Your task to perform on an android device: turn notification dots on Image 0: 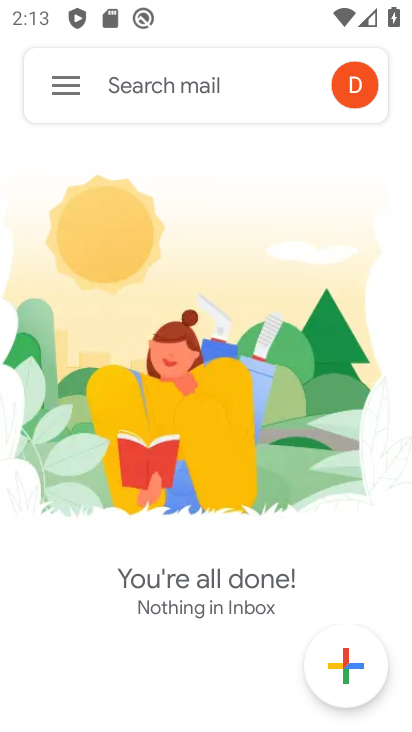
Step 0: press home button
Your task to perform on an android device: turn notification dots on Image 1: 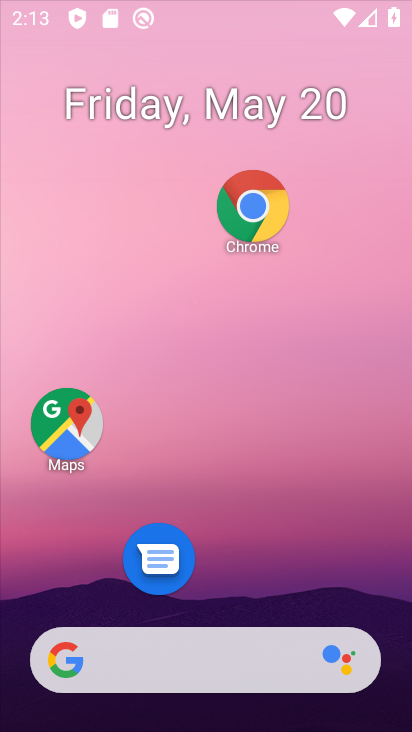
Step 1: drag from (183, 585) to (135, 1)
Your task to perform on an android device: turn notification dots on Image 2: 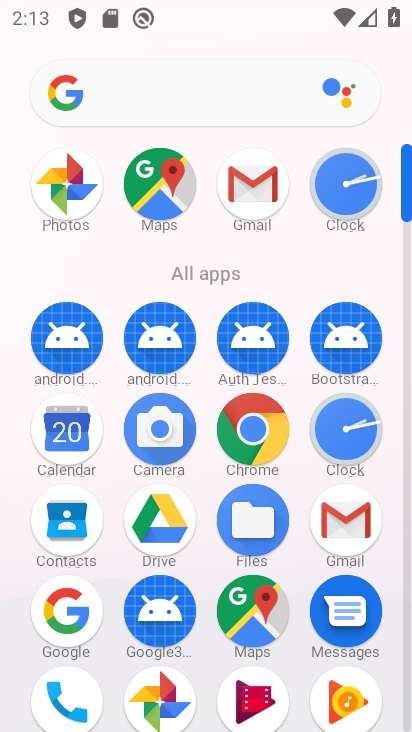
Step 2: drag from (198, 521) to (168, 56)
Your task to perform on an android device: turn notification dots on Image 3: 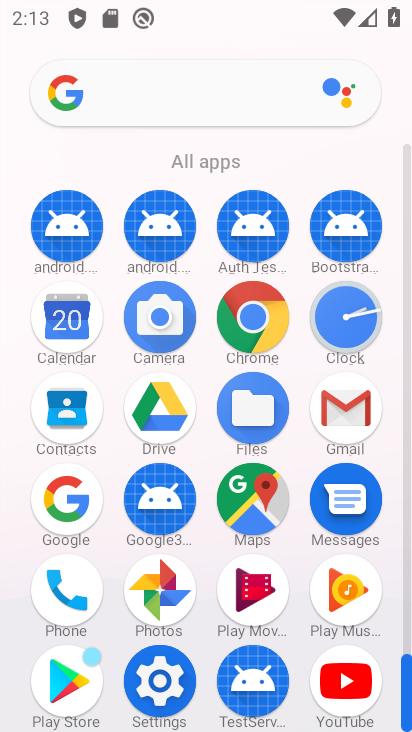
Step 3: click (170, 700)
Your task to perform on an android device: turn notification dots on Image 4: 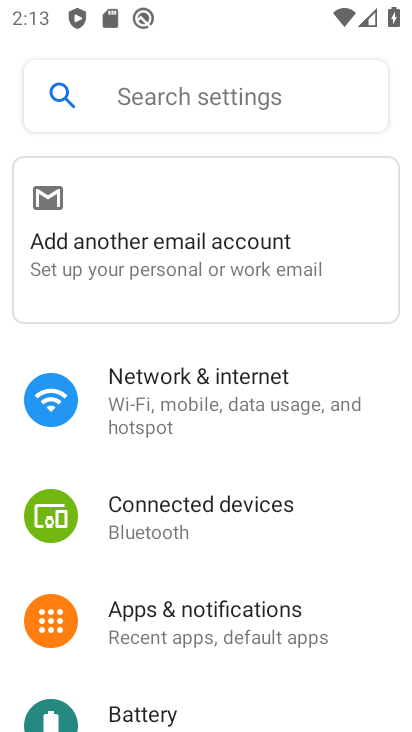
Step 4: click (220, 632)
Your task to perform on an android device: turn notification dots on Image 5: 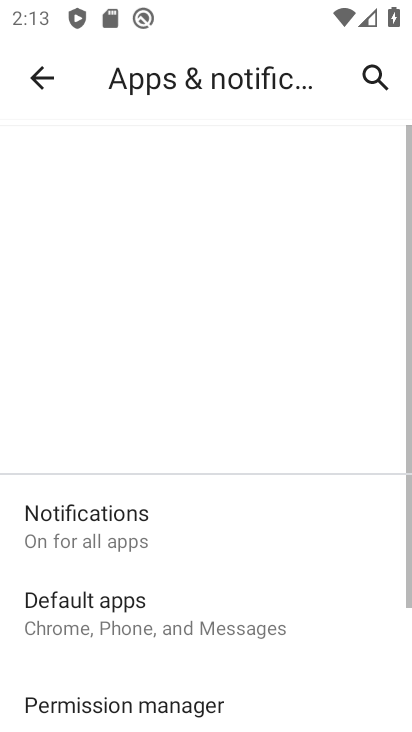
Step 5: click (93, 518)
Your task to perform on an android device: turn notification dots on Image 6: 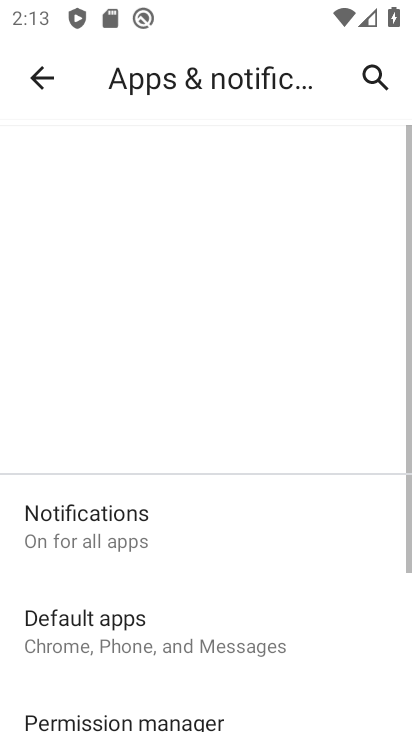
Step 6: drag from (234, 604) to (195, 197)
Your task to perform on an android device: turn notification dots on Image 7: 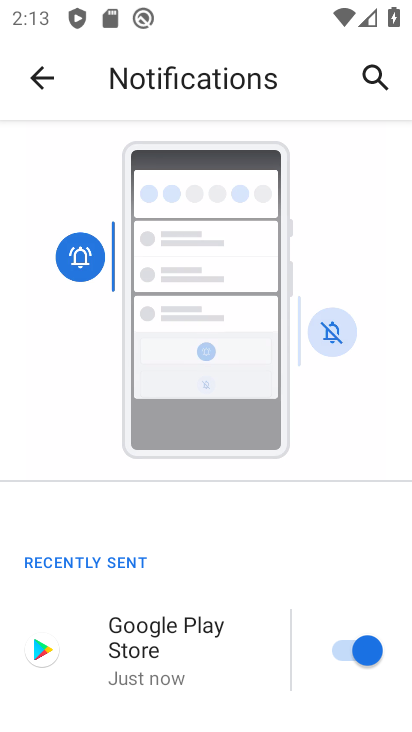
Step 7: drag from (256, 689) to (199, 162)
Your task to perform on an android device: turn notification dots on Image 8: 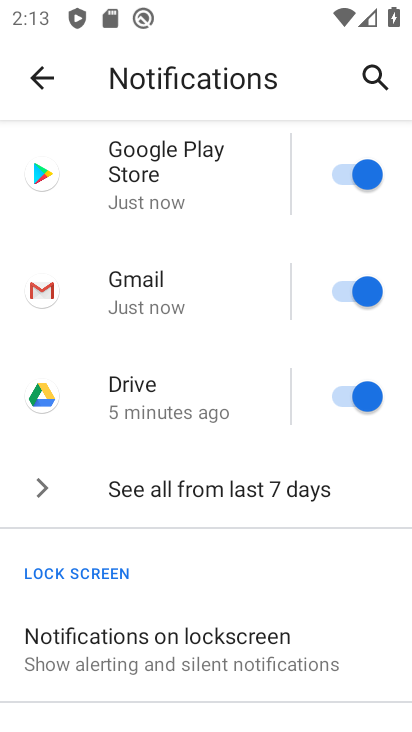
Step 8: drag from (201, 676) to (164, 318)
Your task to perform on an android device: turn notification dots on Image 9: 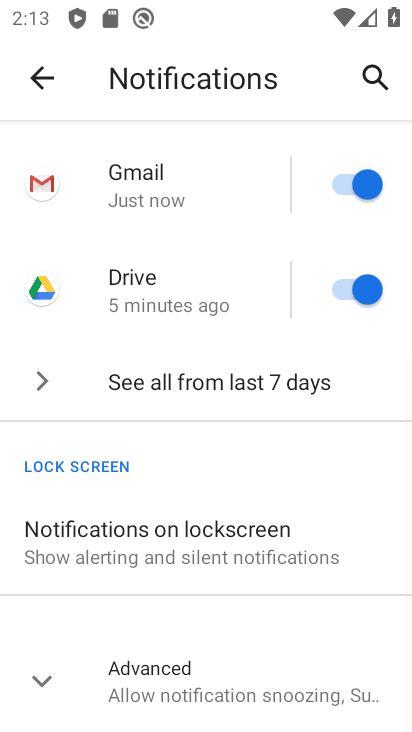
Step 9: click (201, 688)
Your task to perform on an android device: turn notification dots on Image 10: 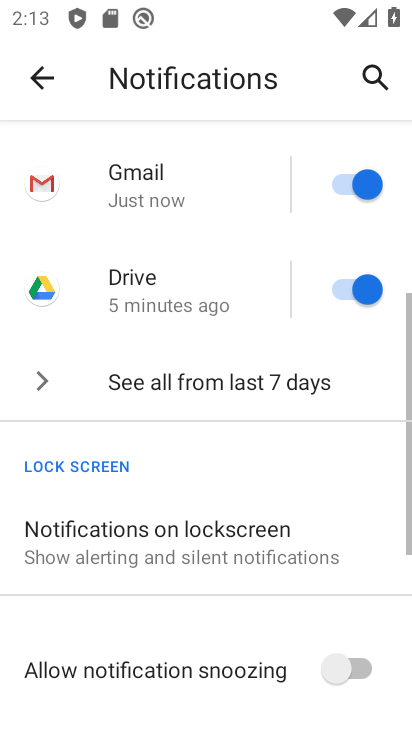
Step 10: task complete